Your task to perform on an android device: check battery use Image 0: 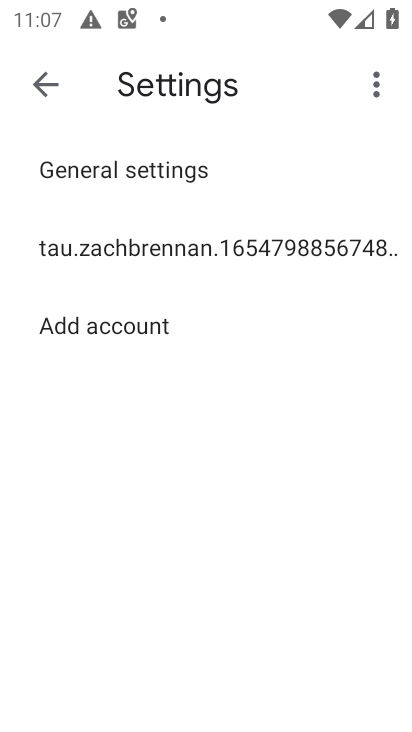
Step 0: press home button
Your task to perform on an android device: check battery use Image 1: 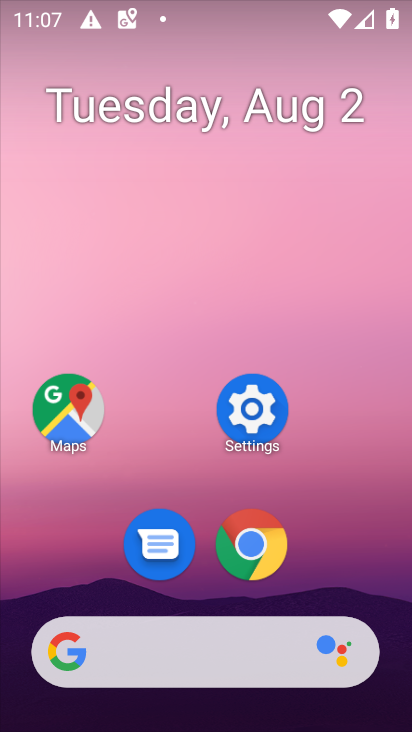
Step 1: click (245, 420)
Your task to perform on an android device: check battery use Image 2: 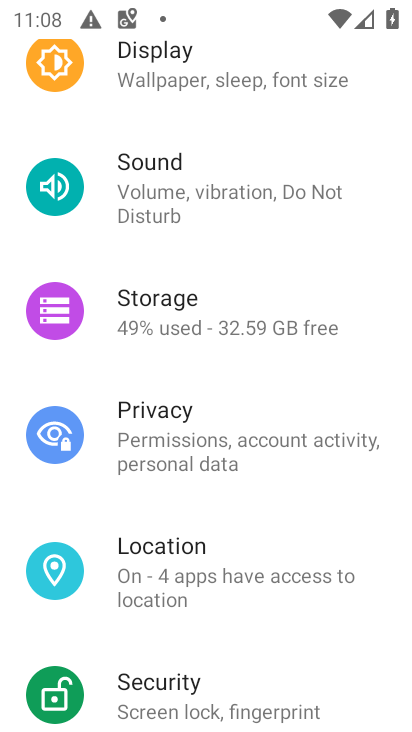
Step 2: drag from (294, 121) to (298, 587)
Your task to perform on an android device: check battery use Image 3: 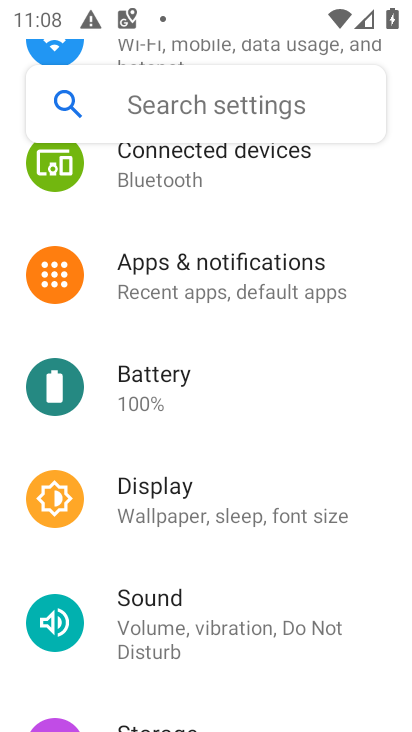
Step 3: drag from (258, 377) to (280, 636)
Your task to perform on an android device: check battery use Image 4: 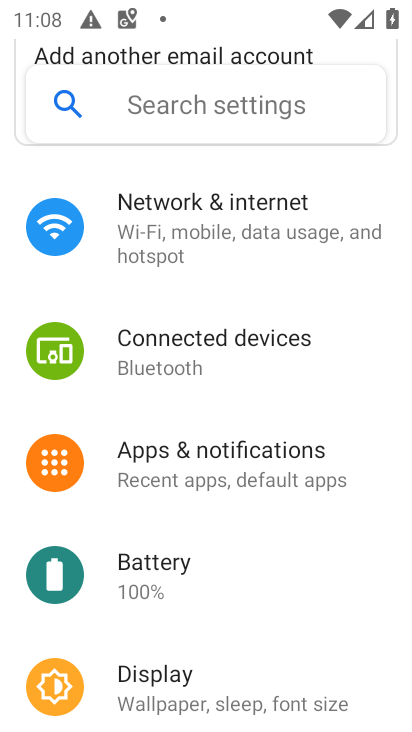
Step 4: drag from (226, 610) to (331, 225)
Your task to perform on an android device: check battery use Image 5: 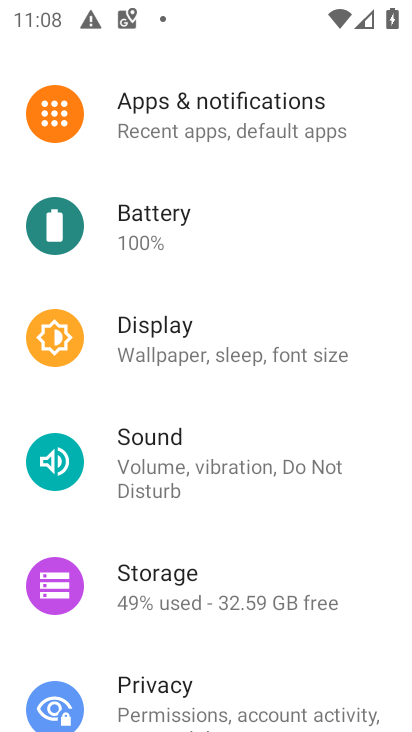
Step 5: drag from (250, 664) to (321, 155)
Your task to perform on an android device: check battery use Image 6: 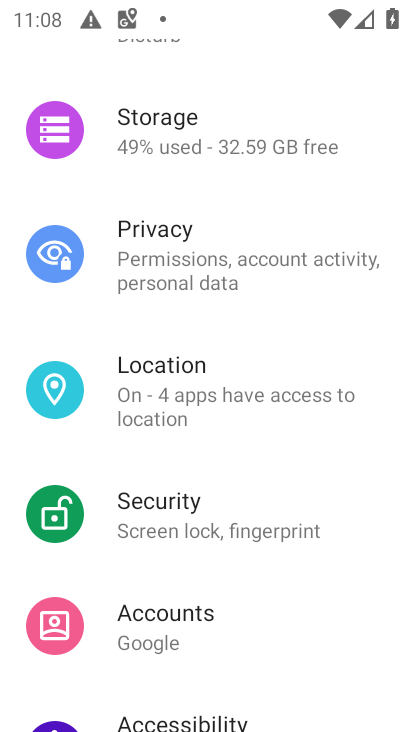
Step 6: drag from (268, 198) to (298, 608)
Your task to perform on an android device: check battery use Image 7: 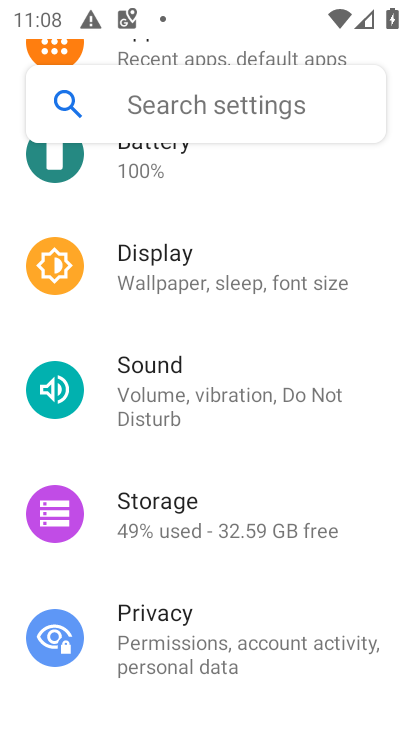
Step 7: drag from (272, 214) to (307, 483)
Your task to perform on an android device: check battery use Image 8: 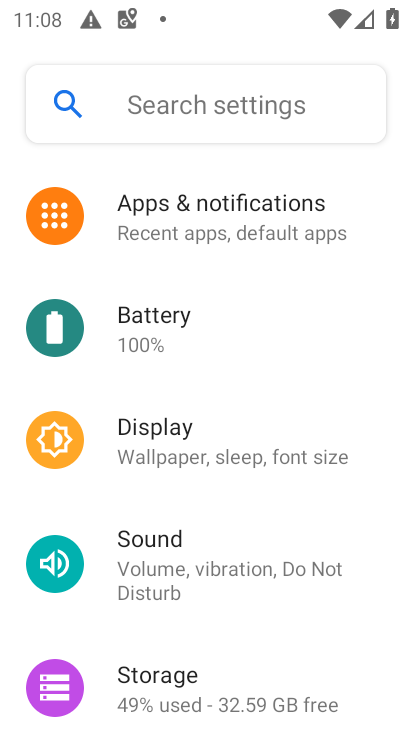
Step 8: click (155, 312)
Your task to perform on an android device: check battery use Image 9: 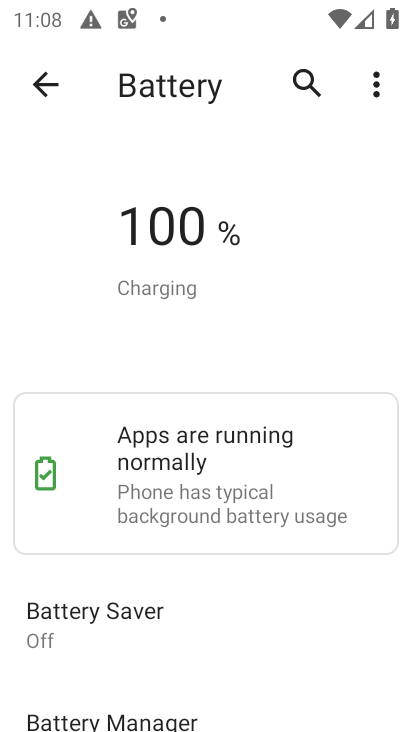
Step 9: click (368, 82)
Your task to perform on an android device: check battery use Image 10: 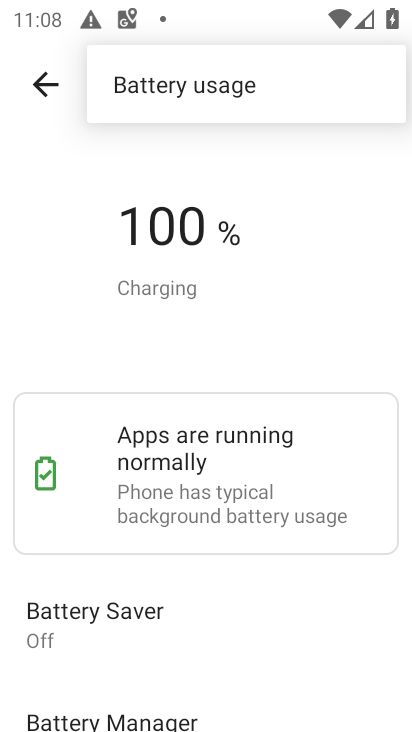
Step 10: click (221, 82)
Your task to perform on an android device: check battery use Image 11: 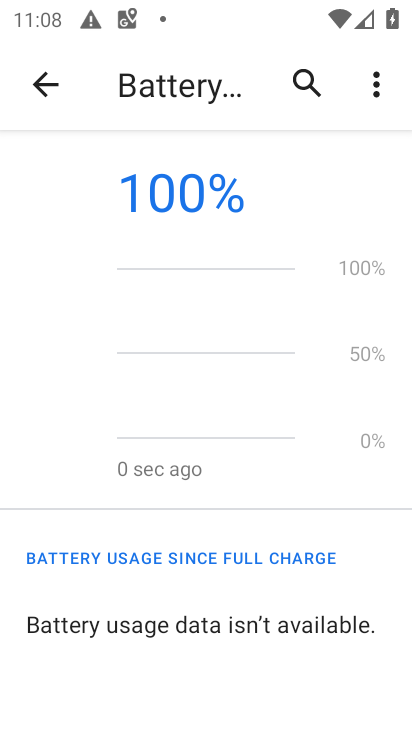
Step 11: task complete